Your task to perform on an android device: toggle data saver in the chrome app Image 0: 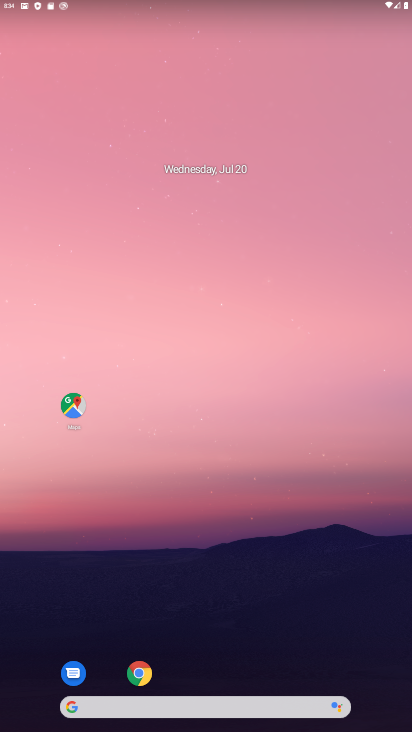
Step 0: drag from (208, 670) to (180, 171)
Your task to perform on an android device: toggle data saver in the chrome app Image 1: 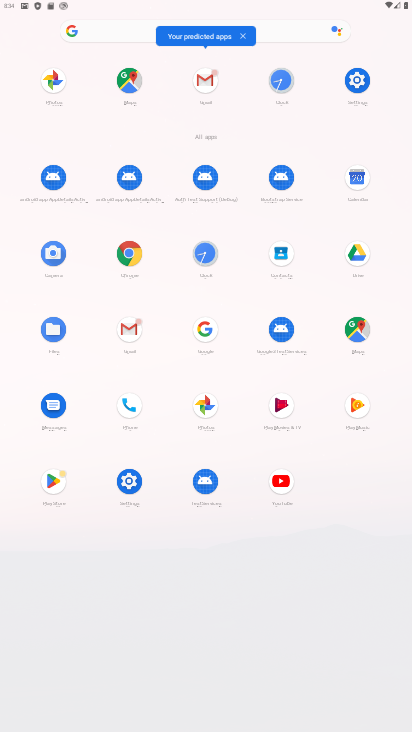
Step 1: click (129, 261)
Your task to perform on an android device: toggle data saver in the chrome app Image 2: 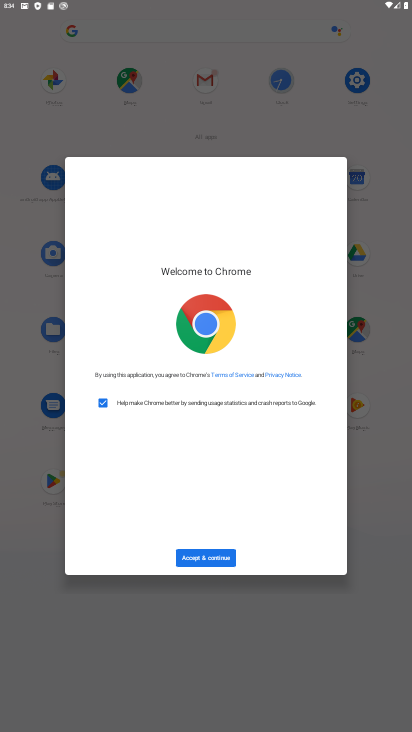
Step 2: click (215, 559)
Your task to perform on an android device: toggle data saver in the chrome app Image 3: 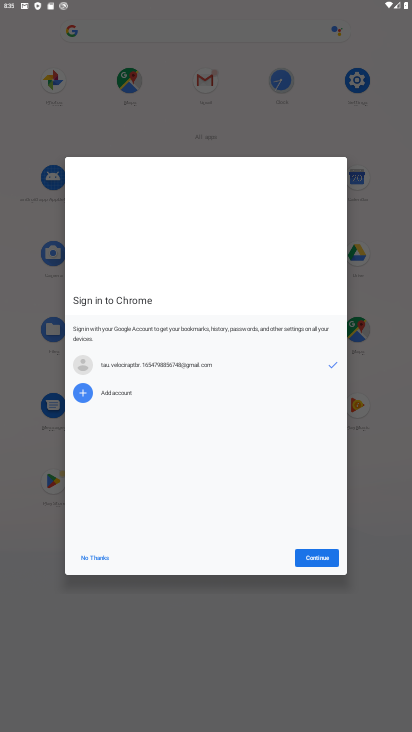
Step 3: click (330, 561)
Your task to perform on an android device: toggle data saver in the chrome app Image 4: 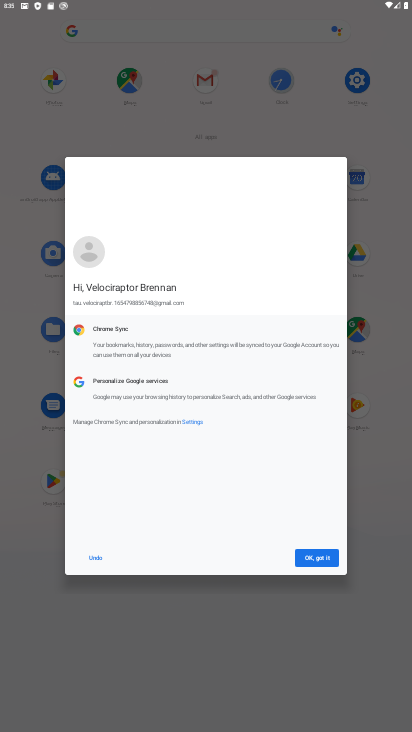
Step 4: click (318, 563)
Your task to perform on an android device: toggle data saver in the chrome app Image 5: 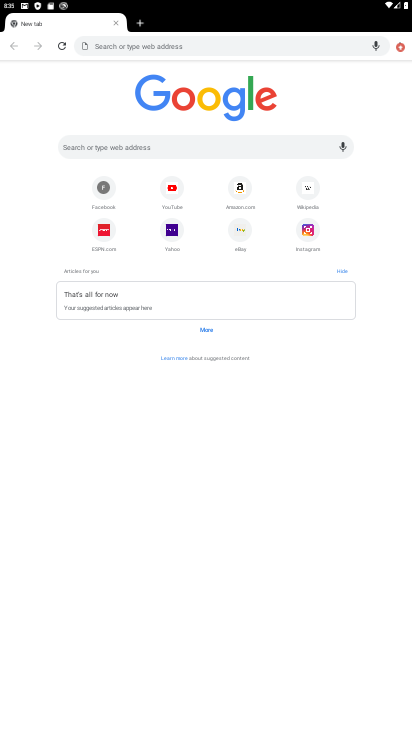
Step 5: click (397, 46)
Your task to perform on an android device: toggle data saver in the chrome app Image 6: 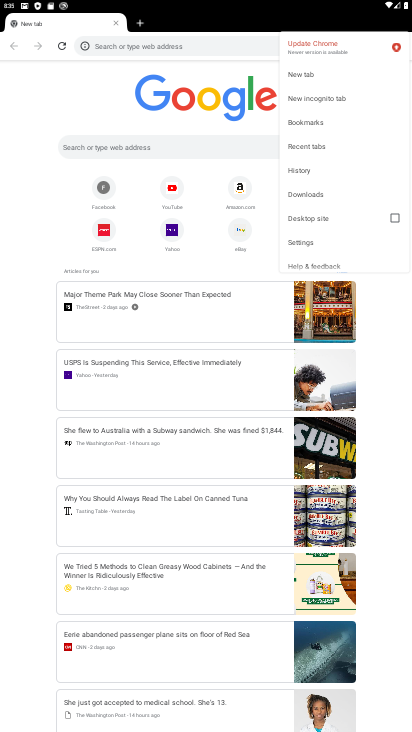
Step 6: click (300, 240)
Your task to perform on an android device: toggle data saver in the chrome app Image 7: 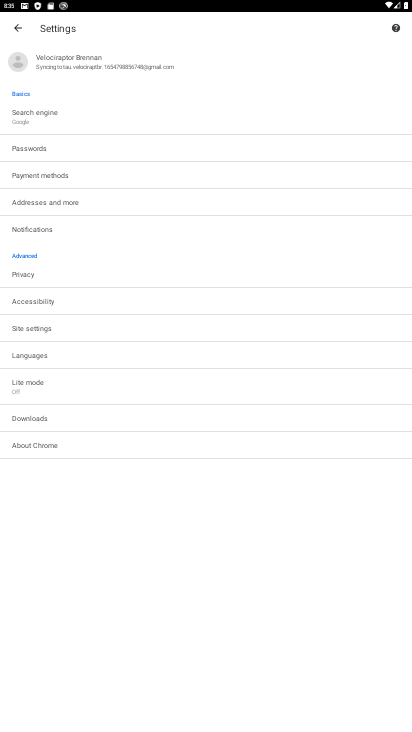
Step 7: click (54, 392)
Your task to perform on an android device: toggle data saver in the chrome app Image 8: 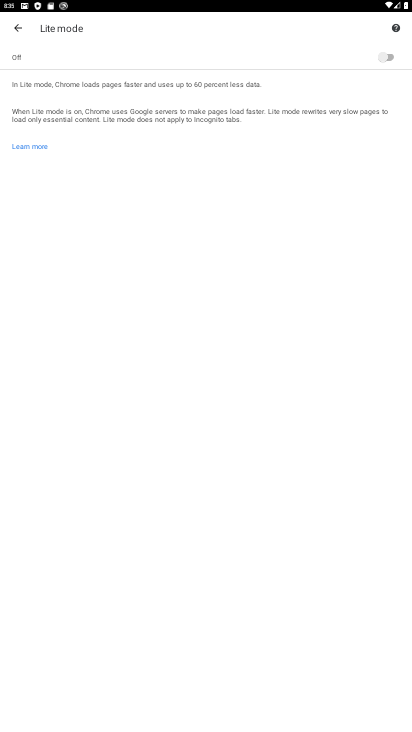
Step 8: click (389, 56)
Your task to perform on an android device: toggle data saver in the chrome app Image 9: 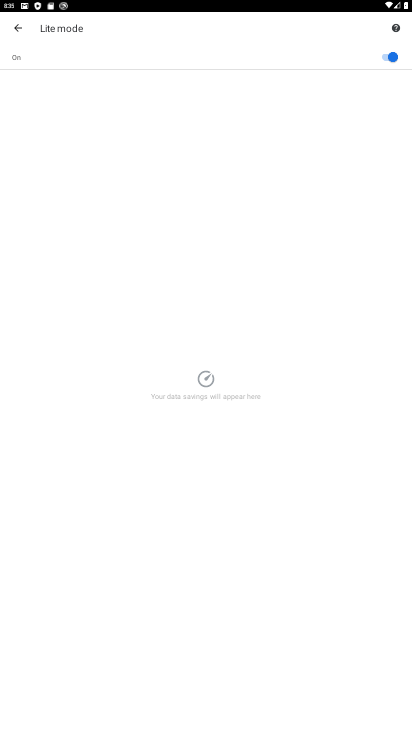
Step 9: task complete